Your task to perform on an android device: toggle notifications settings in the gmail app Image 0: 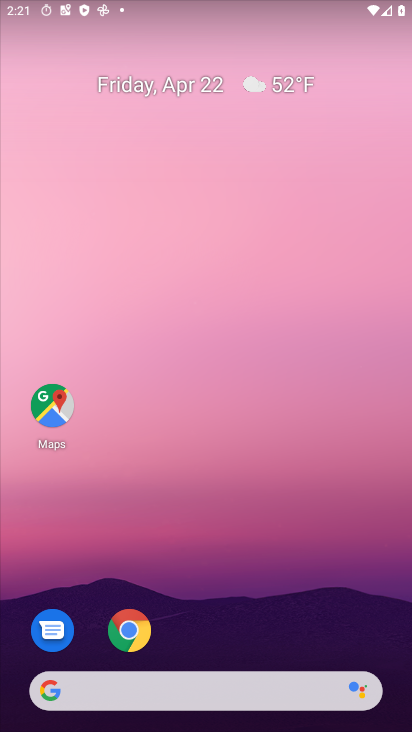
Step 0: drag from (323, 245) to (315, 173)
Your task to perform on an android device: toggle notifications settings in the gmail app Image 1: 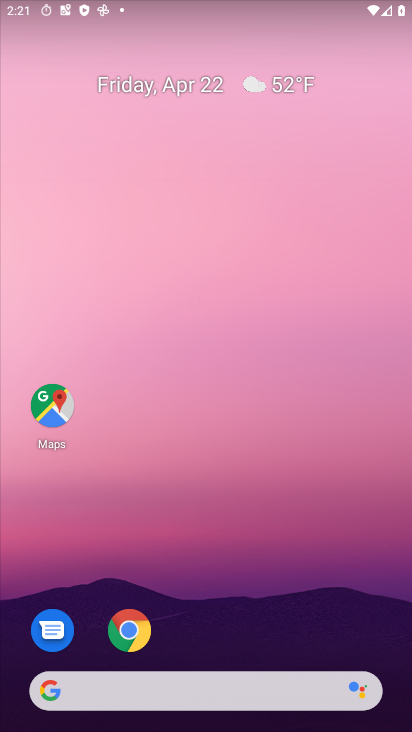
Step 1: click (371, 165)
Your task to perform on an android device: toggle notifications settings in the gmail app Image 2: 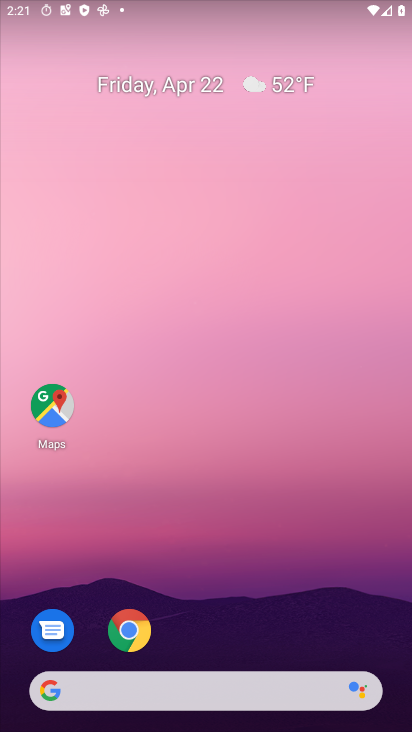
Step 2: drag from (365, 480) to (340, 175)
Your task to perform on an android device: toggle notifications settings in the gmail app Image 3: 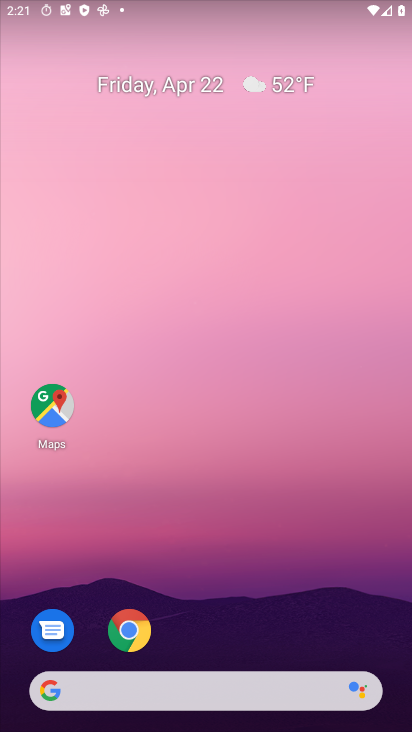
Step 3: drag from (380, 301) to (376, 254)
Your task to perform on an android device: toggle notifications settings in the gmail app Image 4: 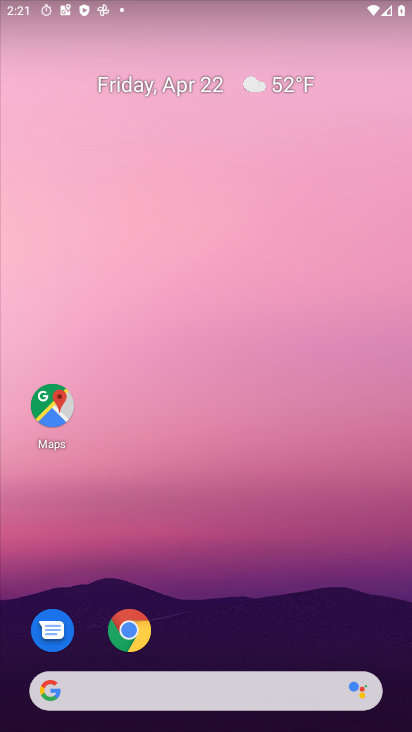
Step 4: drag from (380, 533) to (344, 100)
Your task to perform on an android device: toggle notifications settings in the gmail app Image 5: 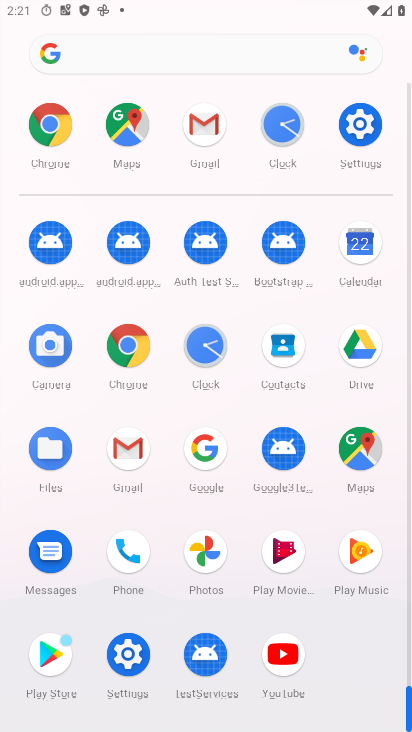
Step 5: click (128, 444)
Your task to perform on an android device: toggle notifications settings in the gmail app Image 6: 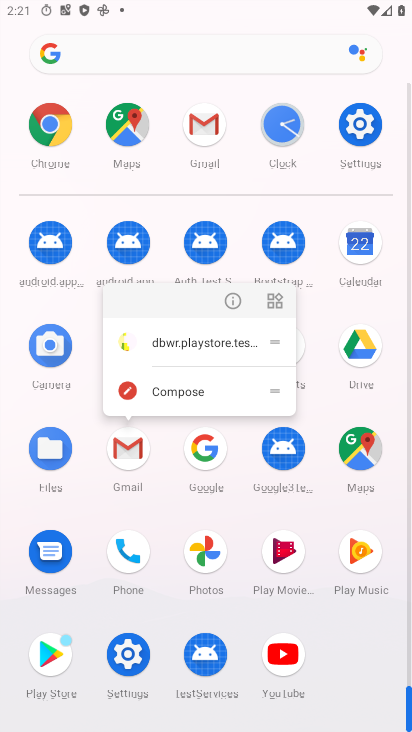
Step 6: click (128, 444)
Your task to perform on an android device: toggle notifications settings in the gmail app Image 7: 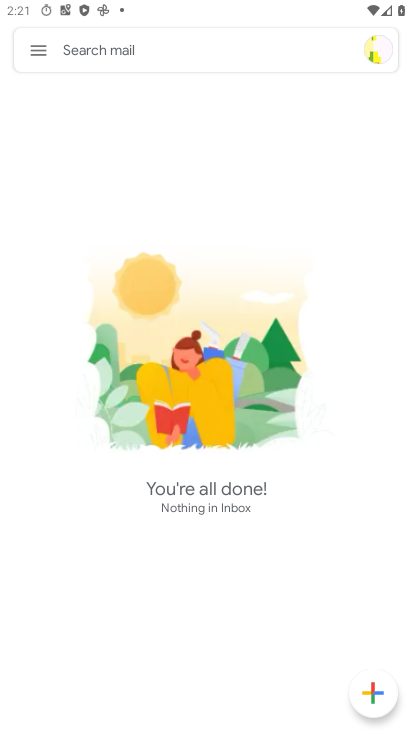
Step 7: click (36, 46)
Your task to perform on an android device: toggle notifications settings in the gmail app Image 8: 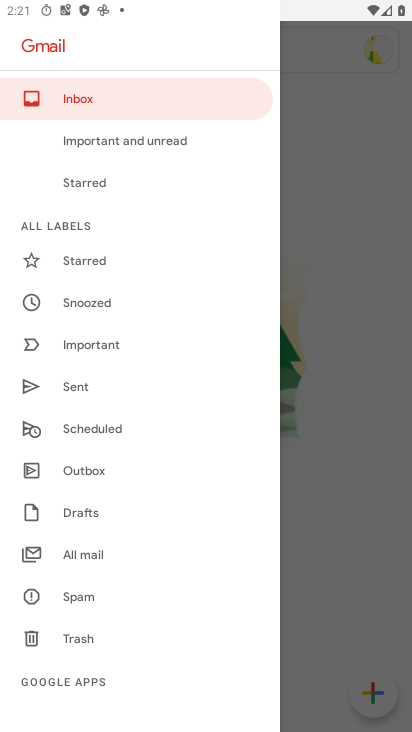
Step 8: drag from (161, 293) to (153, 185)
Your task to perform on an android device: toggle notifications settings in the gmail app Image 9: 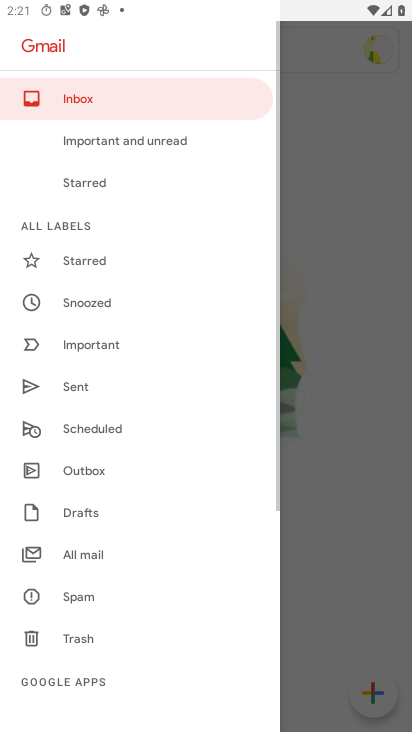
Step 9: drag from (166, 375) to (192, 205)
Your task to perform on an android device: toggle notifications settings in the gmail app Image 10: 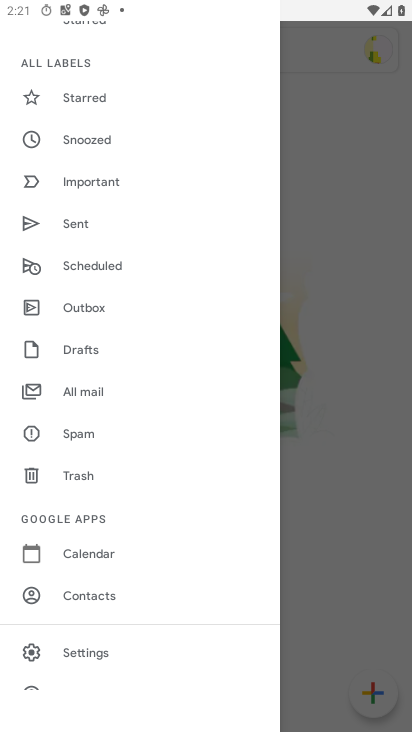
Step 10: click (69, 639)
Your task to perform on an android device: toggle notifications settings in the gmail app Image 11: 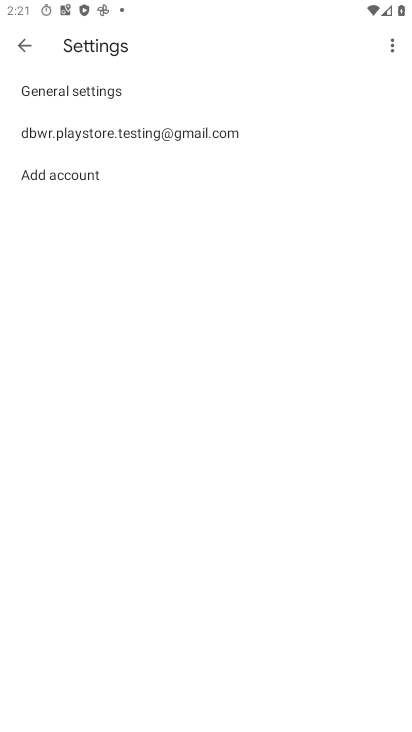
Step 11: click (80, 88)
Your task to perform on an android device: toggle notifications settings in the gmail app Image 12: 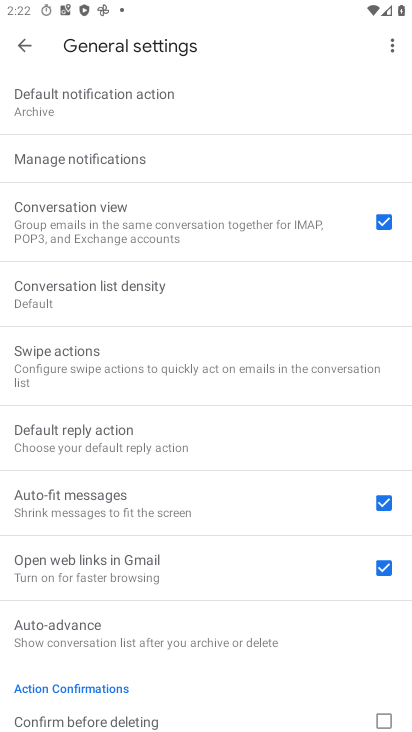
Step 12: click (70, 156)
Your task to perform on an android device: toggle notifications settings in the gmail app Image 13: 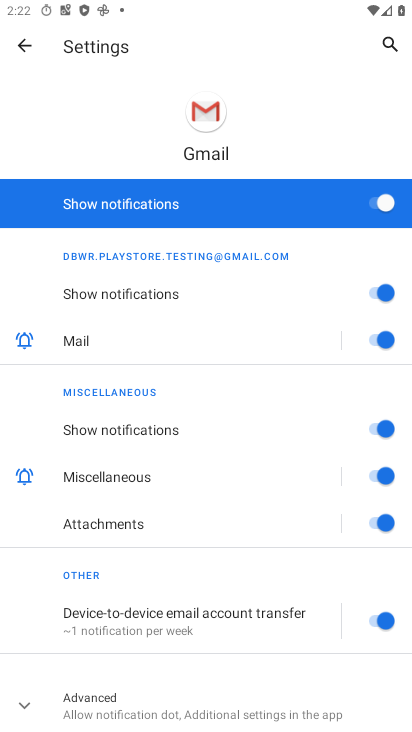
Step 13: click (370, 199)
Your task to perform on an android device: toggle notifications settings in the gmail app Image 14: 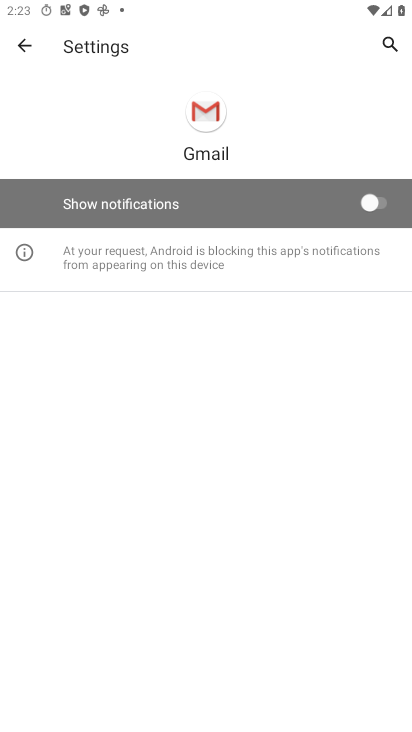
Step 14: task complete